Your task to perform on an android device: open wifi settings Image 0: 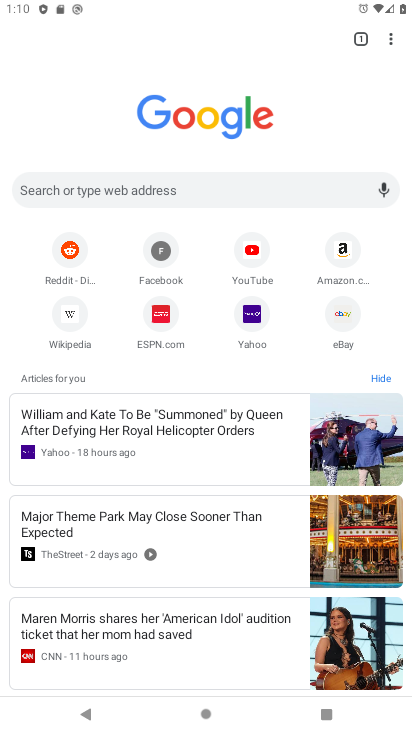
Step 0: press home button
Your task to perform on an android device: open wifi settings Image 1: 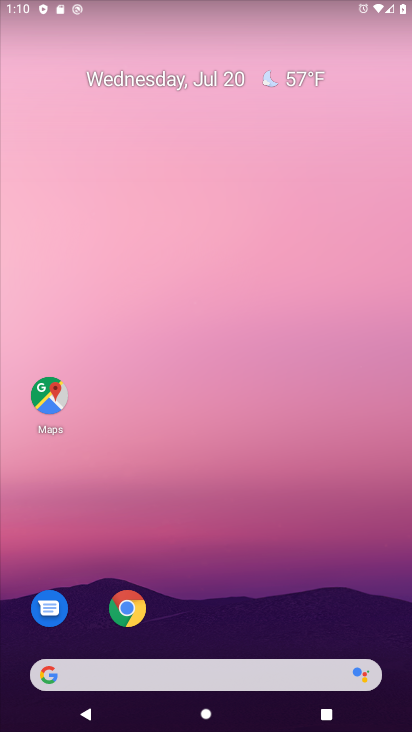
Step 1: click (344, 188)
Your task to perform on an android device: open wifi settings Image 2: 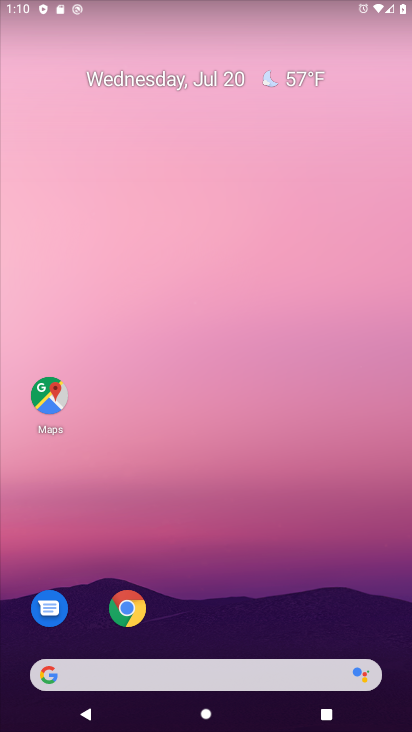
Step 2: drag from (264, 713) to (310, 52)
Your task to perform on an android device: open wifi settings Image 3: 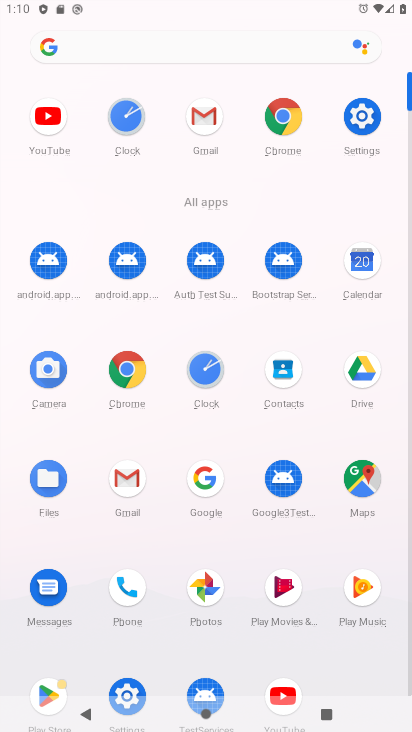
Step 3: click (366, 126)
Your task to perform on an android device: open wifi settings Image 4: 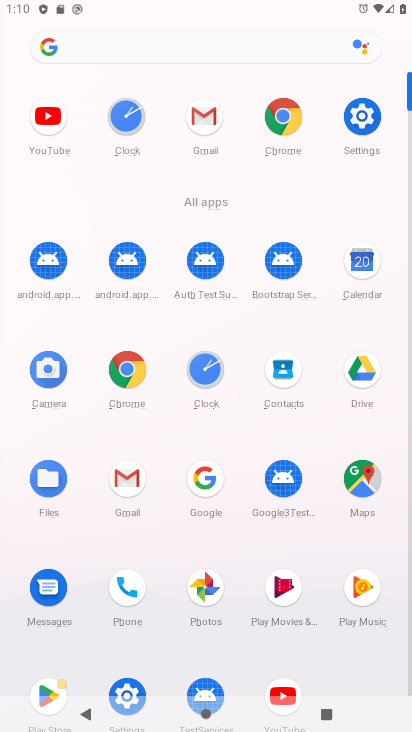
Step 4: click (366, 126)
Your task to perform on an android device: open wifi settings Image 5: 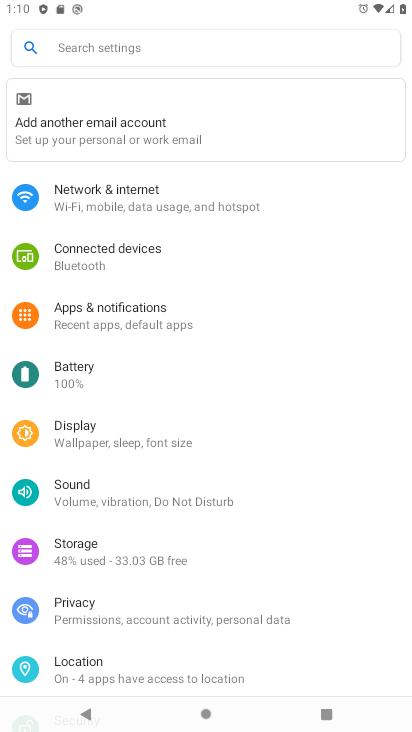
Step 5: click (167, 196)
Your task to perform on an android device: open wifi settings Image 6: 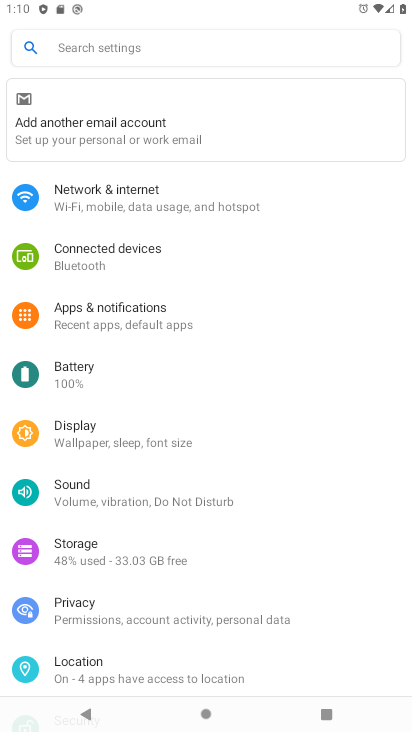
Step 6: click (167, 196)
Your task to perform on an android device: open wifi settings Image 7: 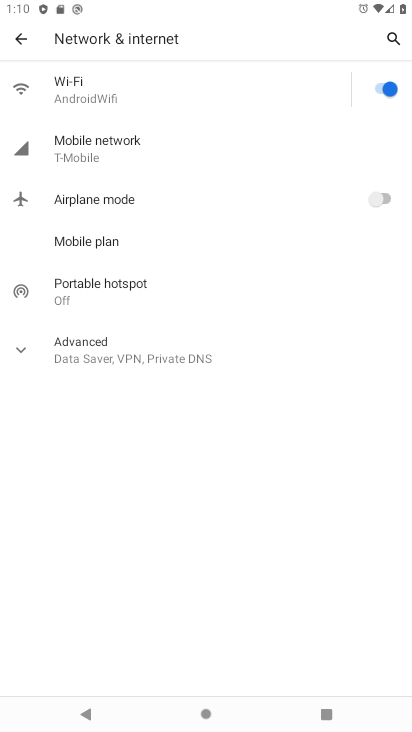
Step 7: click (203, 100)
Your task to perform on an android device: open wifi settings Image 8: 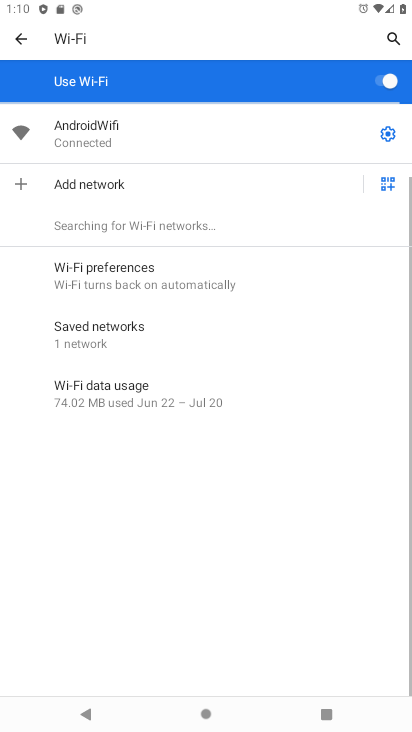
Step 8: click (392, 134)
Your task to perform on an android device: open wifi settings Image 9: 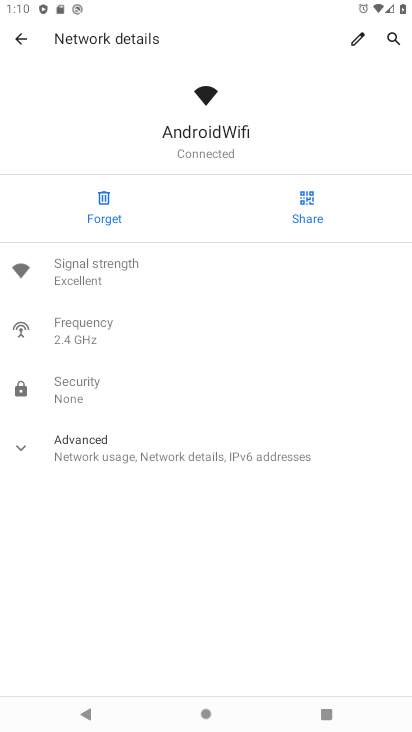
Step 9: task complete